Your task to perform on an android device: uninstall "Adobe Acrobat Reader" Image 0: 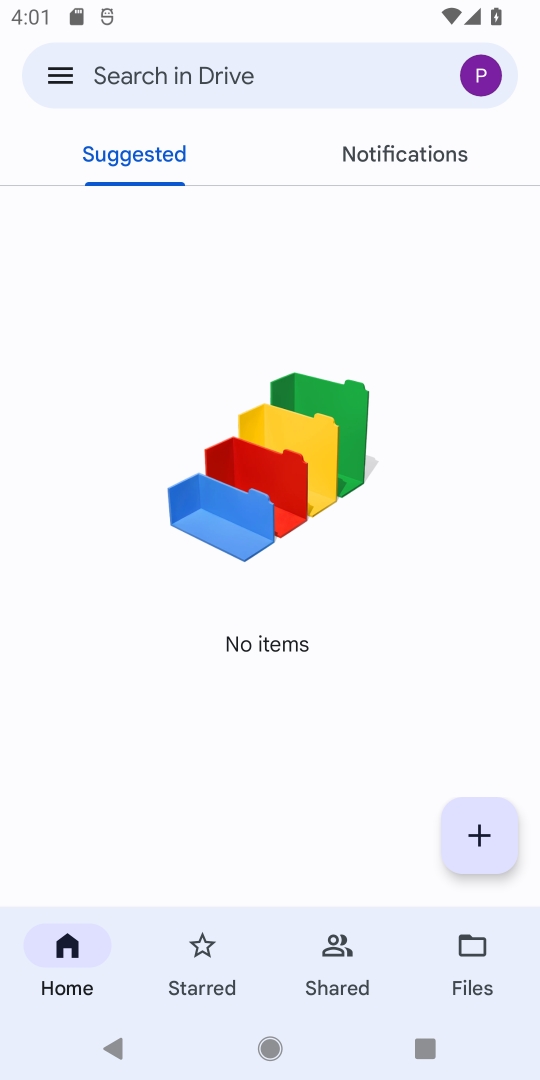
Step 0: press home button
Your task to perform on an android device: uninstall "Adobe Acrobat Reader" Image 1: 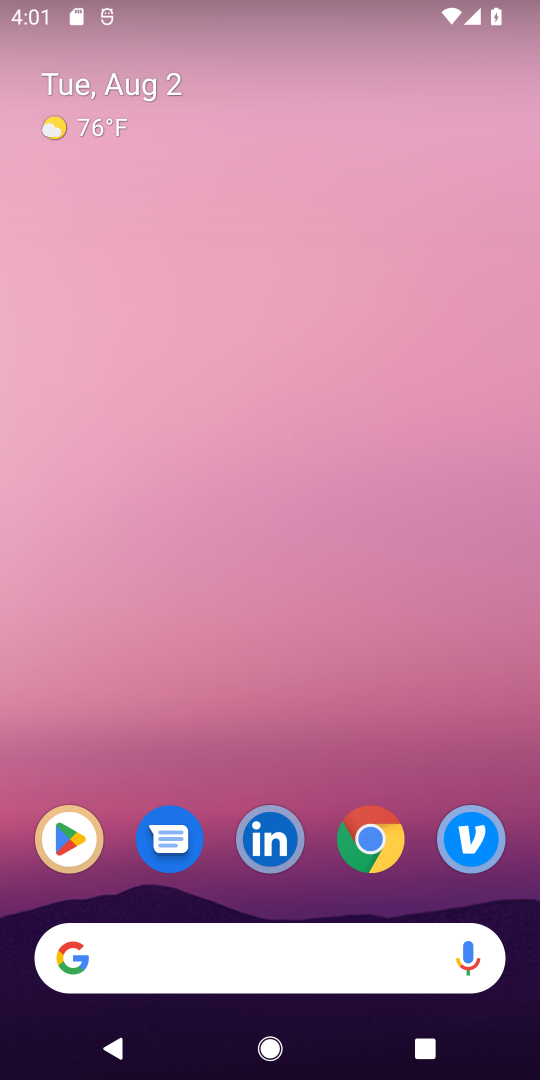
Step 1: click (62, 853)
Your task to perform on an android device: uninstall "Adobe Acrobat Reader" Image 2: 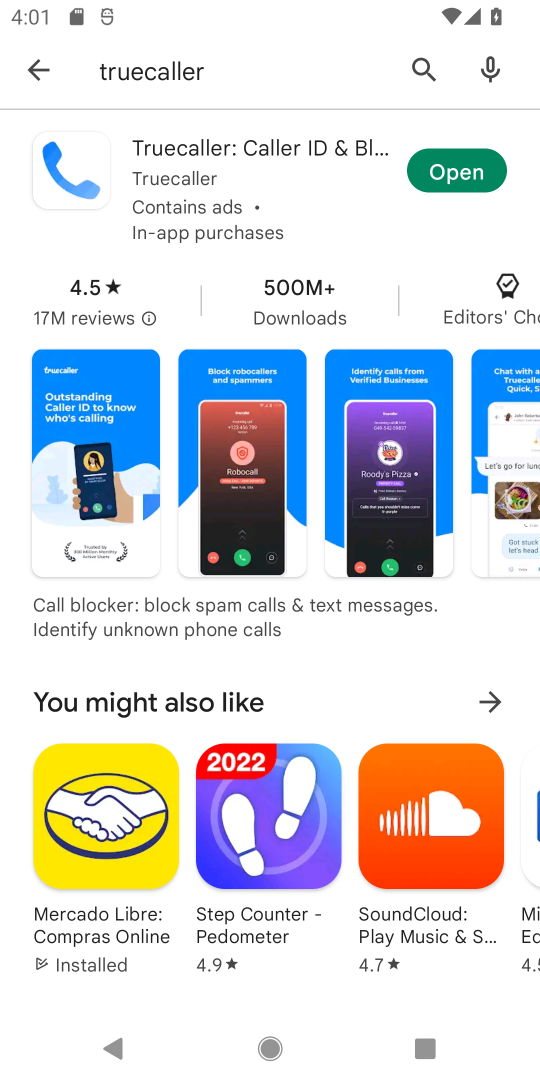
Step 2: press home button
Your task to perform on an android device: uninstall "Adobe Acrobat Reader" Image 3: 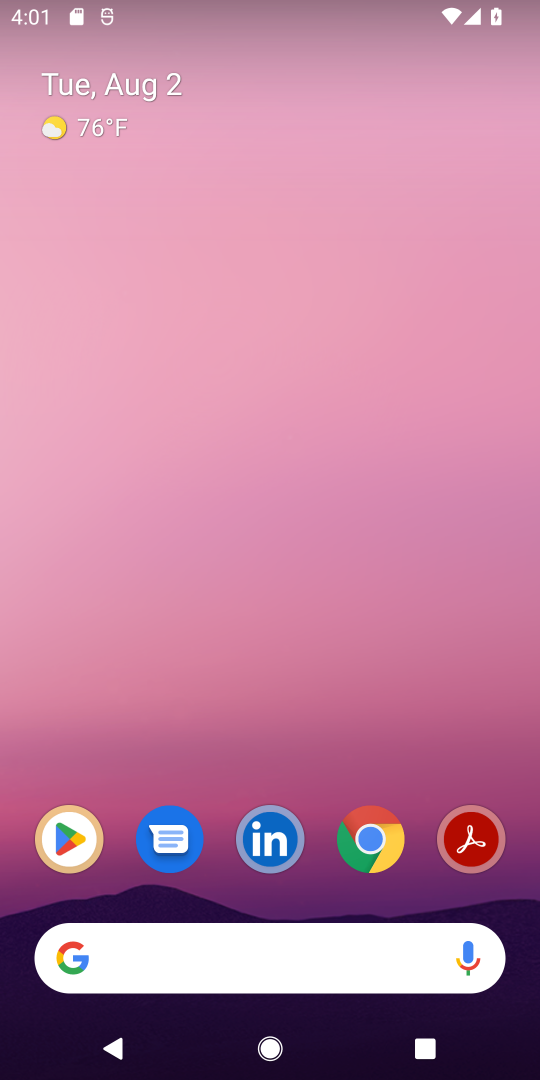
Step 3: drag from (225, 906) to (175, 635)
Your task to perform on an android device: uninstall "Adobe Acrobat Reader" Image 4: 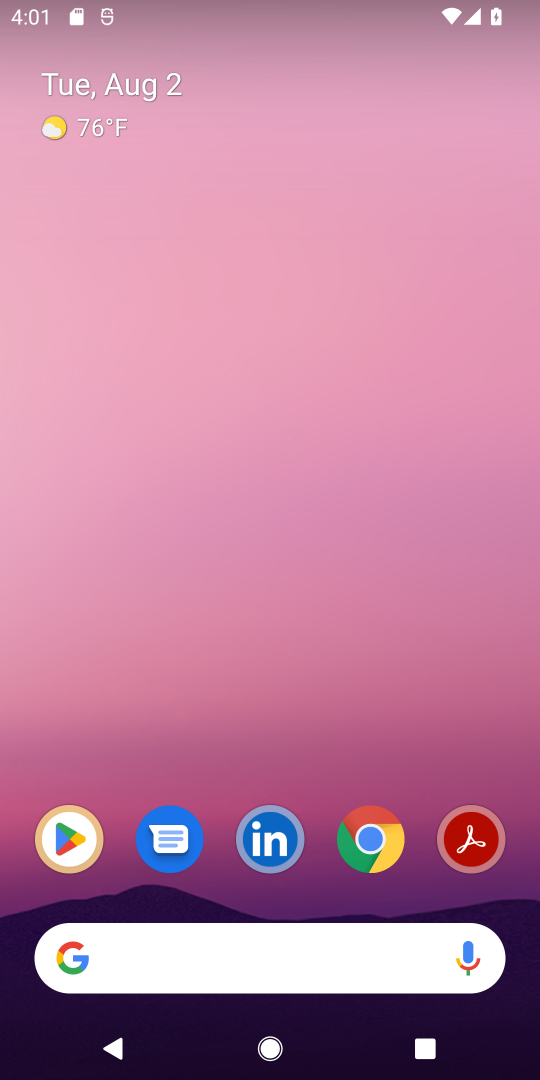
Step 4: click (455, 858)
Your task to perform on an android device: uninstall "Adobe Acrobat Reader" Image 5: 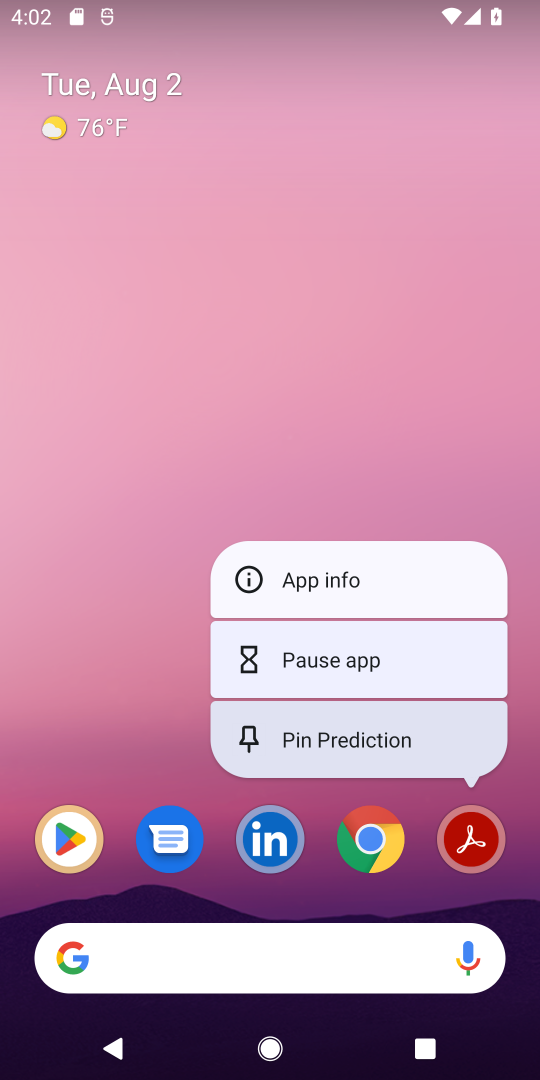
Step 5: click (335, 591)
Your task to perform on an android device: uninstall "Adobe Acrobat Reader" Image 6: 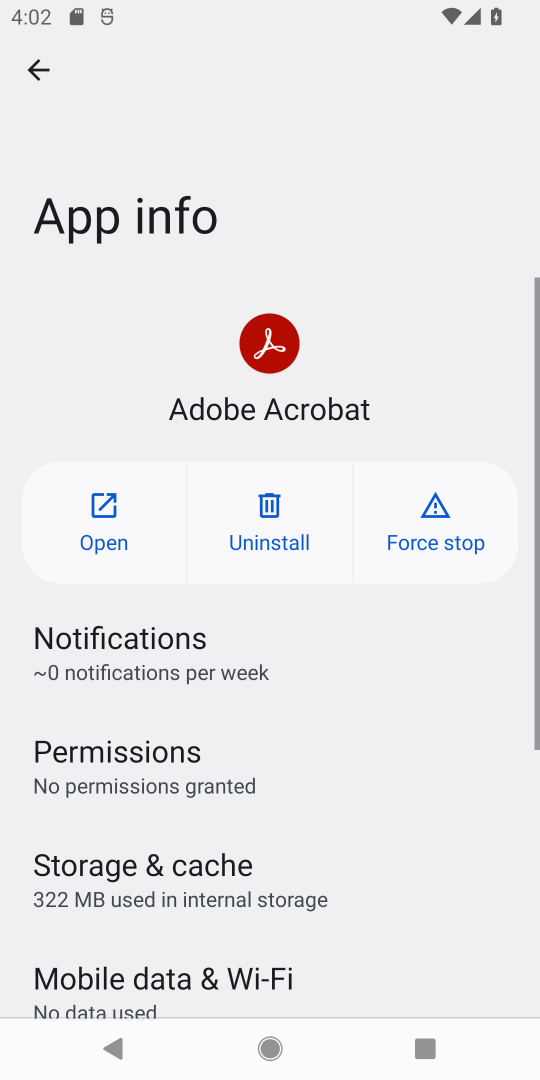
Step 6: click (249, 506)
Your task to perform on an android device: uninstall "Adobe Acrobat Reader" Image 7: 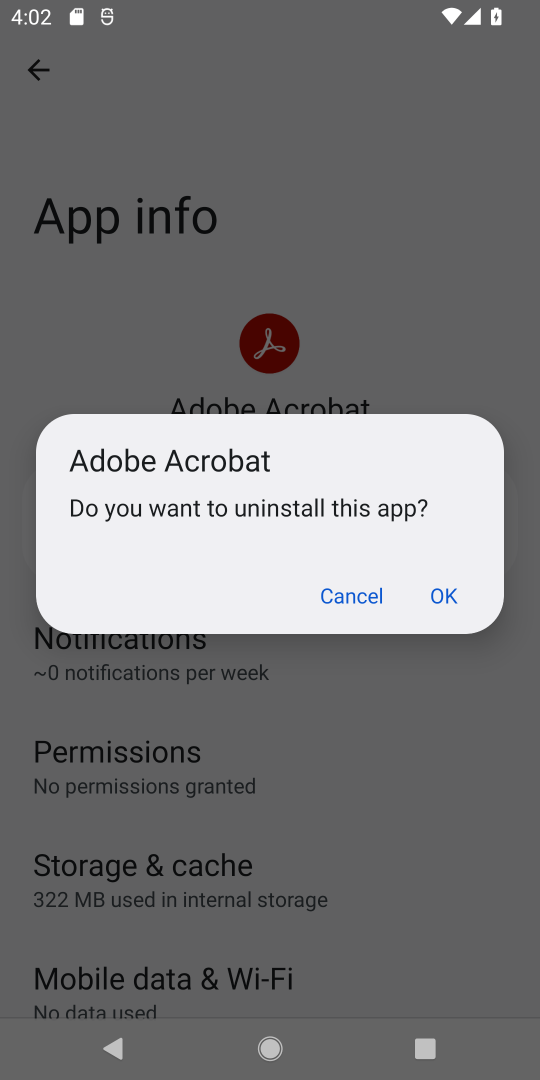
Step 7: click (437, 586)
Your task to perform on an android device: uninstall "Adobe Acrobat Reader" Image 8: 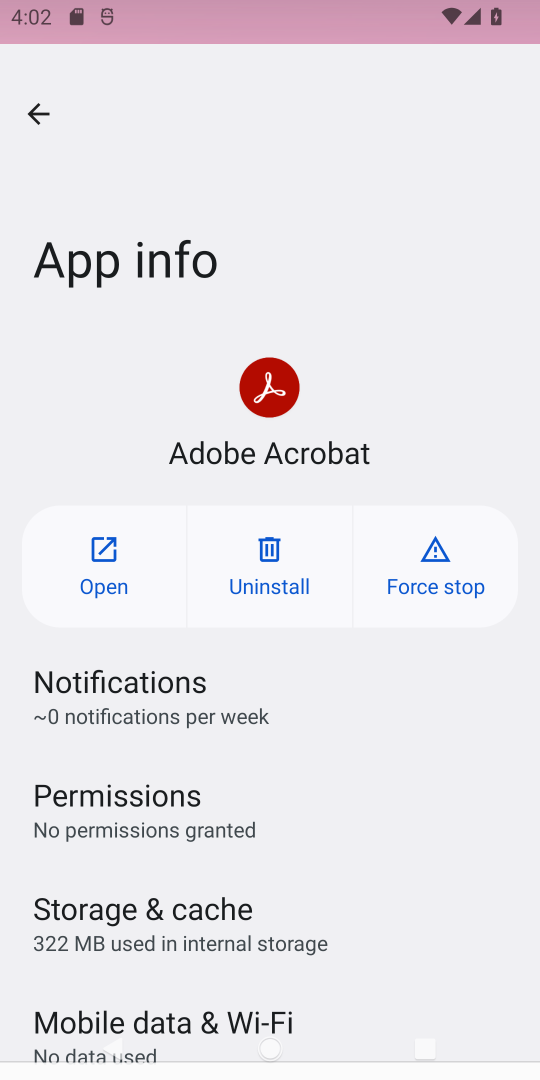
Step 8: task complete